Your task to perform on an android device: manage bookmarks in the chrome app Image 0: 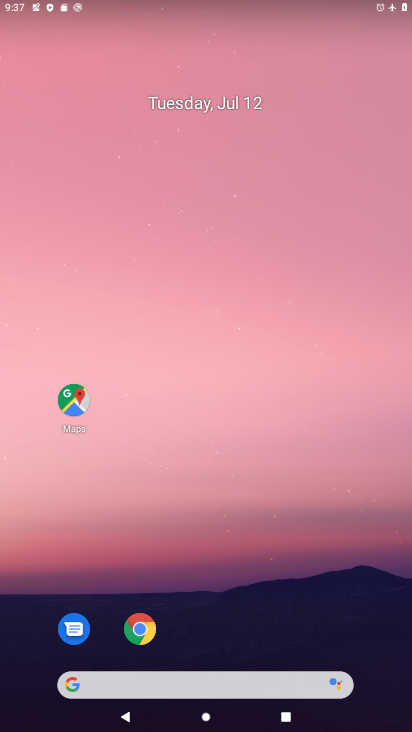
Step 0: drag from (240, 526) to (240, 296)
Your task to perform on an android device: manage bookmarks in the chrome app Image 1: 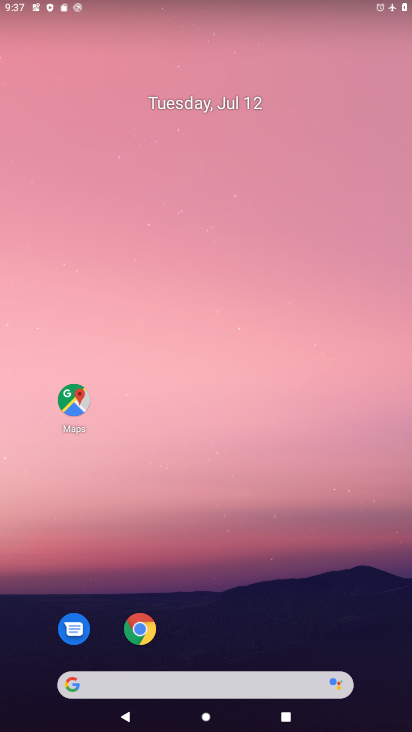
Step 1: drag from (212, 649) to (255, 337)
Your task to perform on an android device: manage bookmarks in the chrome app Image 2: 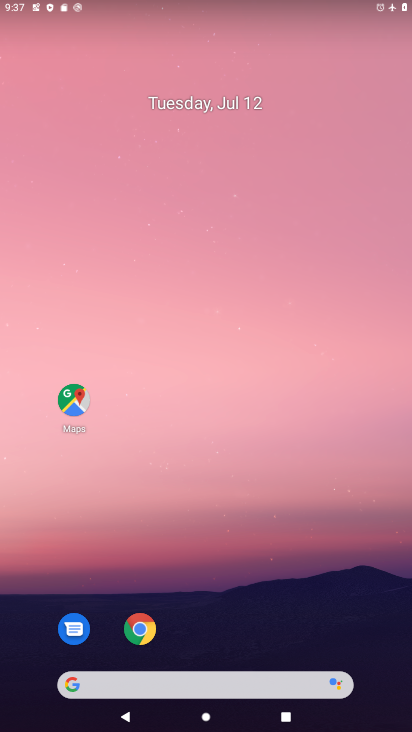
Step 2: drag from (212, 627) to (235, 396)
Your task to perform on an android device: manage bookmarks in the chrome app Image 3: 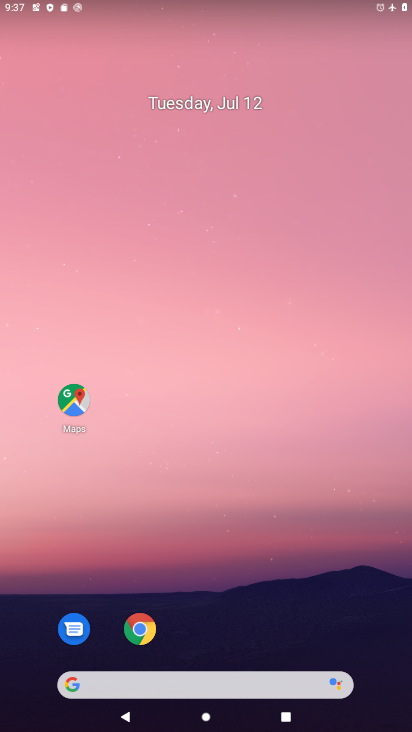
Step 3: drag from (233, 642) to (242, 175)
Your task to perform on an android device: manage bookmarks in the chrome app Image 4: 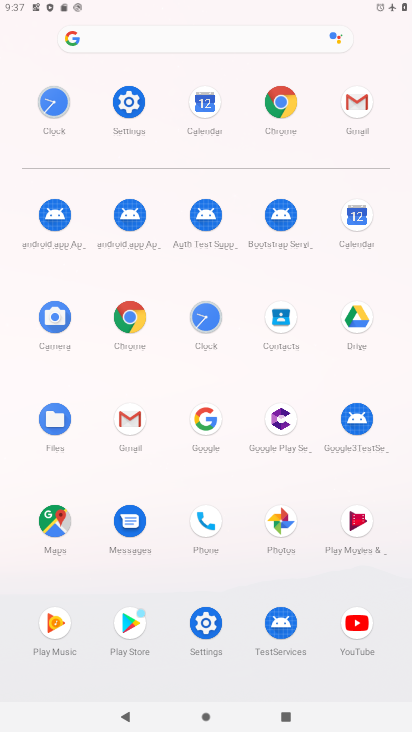
Step 4: click (284, 89)
Your task to perform on an android device: manage bookmarks in the chrome app Image 5: 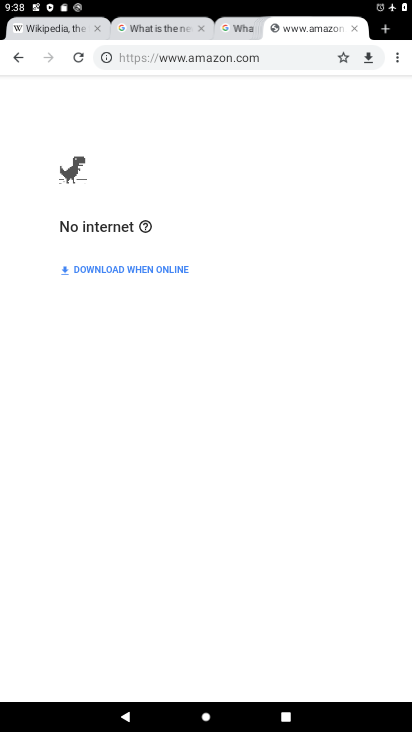
Step 5: click (396, 47)
Your task to perform on an android device: manage bookmarks in the chrome app Image 6: 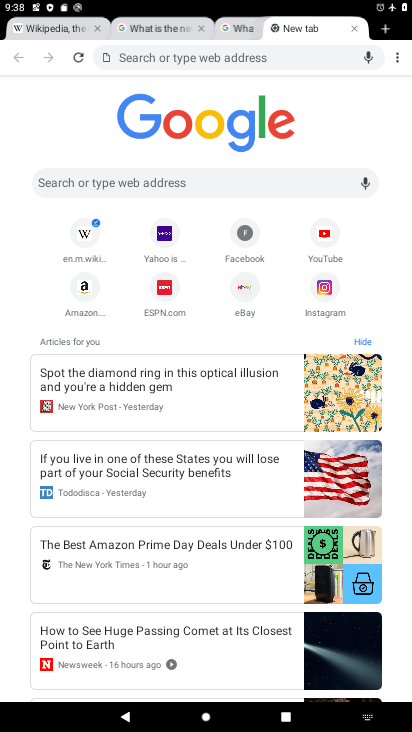
Step 6: click (401, 59)
Your task to perform on an android device: manage bookmarks in the chrome app Image 7: 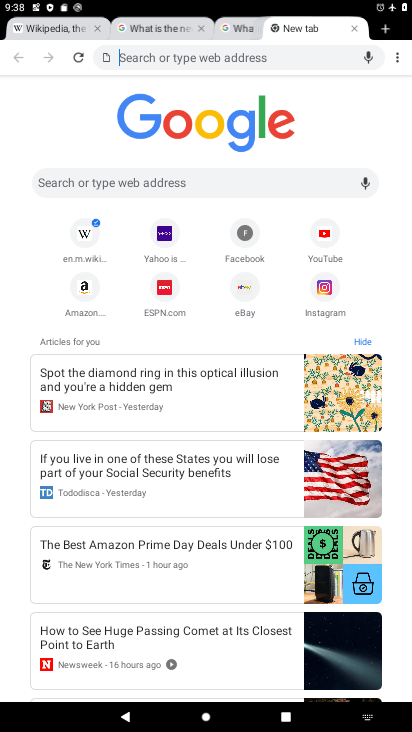
Step 7: click (403, 52)
Your task to perform on an android device: manage bookmarks in the chrome app Image 8: 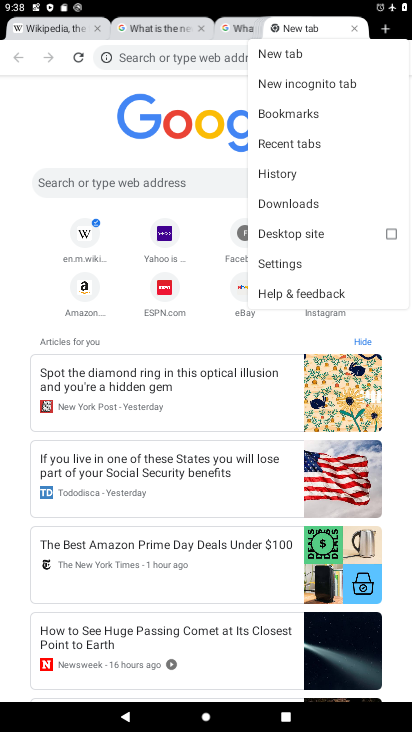
Step 8: click (314, 116)
Your task to perform on an android device: manage bookmarks in the chrome app Image 9: 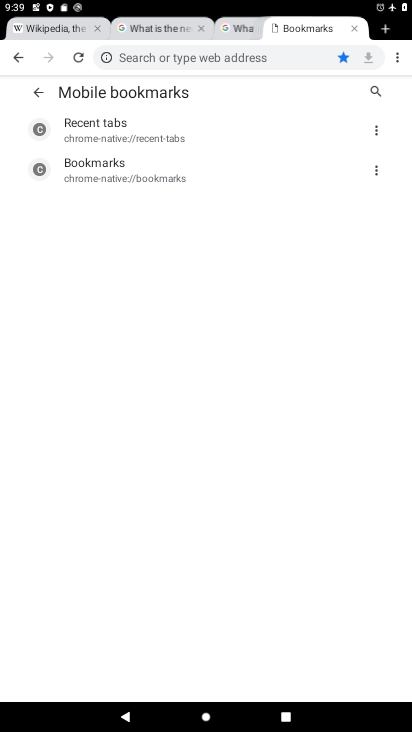
Step 9: click (114, 130)
Your task to perform on an android device: manage bookmarks in the chrome app Image 10: 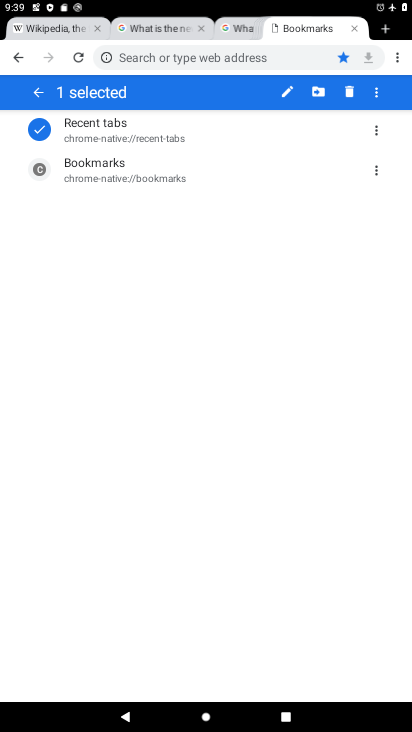
Step 10: click (322, 89)
Your task to perform on an android device: manage bookmarks in the chrome app Image 11: 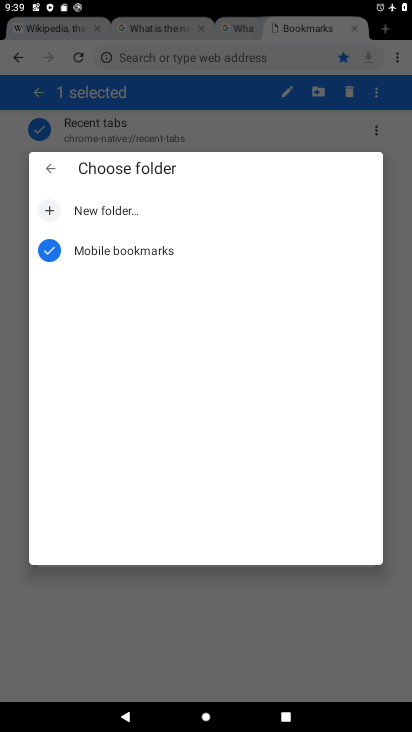
Step 11: click (125, 216)
Your task to perform on an android device: manage bookmarks in the chrome app Image 12: 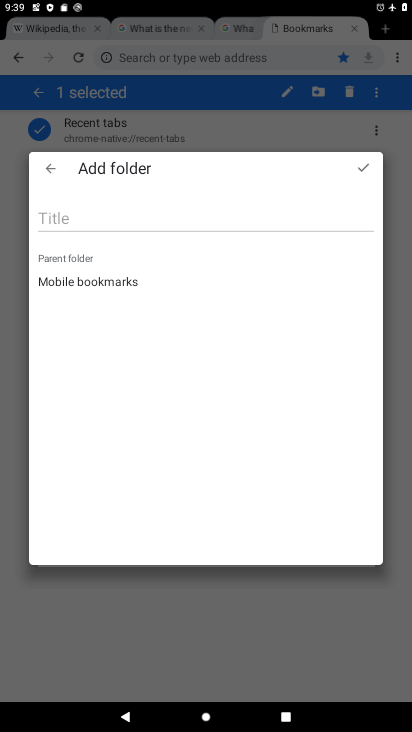
Step 12: click (128, 219)
Your task to perform on an android device: manage bookmarks in the chrome app Image 13: 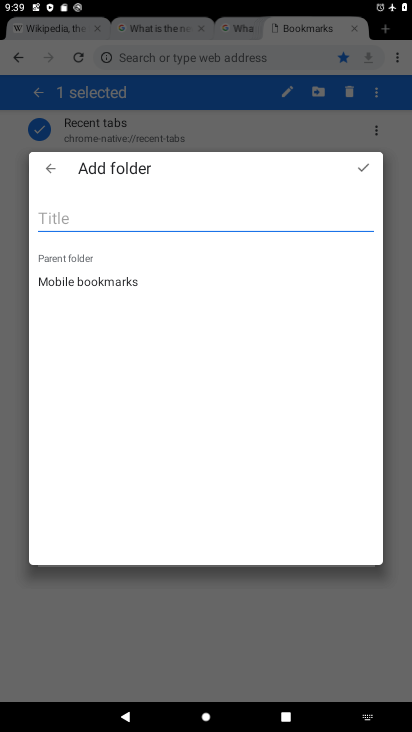
Step 13: type "jvjjvjvvjvjvjv "
Your task to perform on an android device: manage bookmarks in the chrome app Image 14: 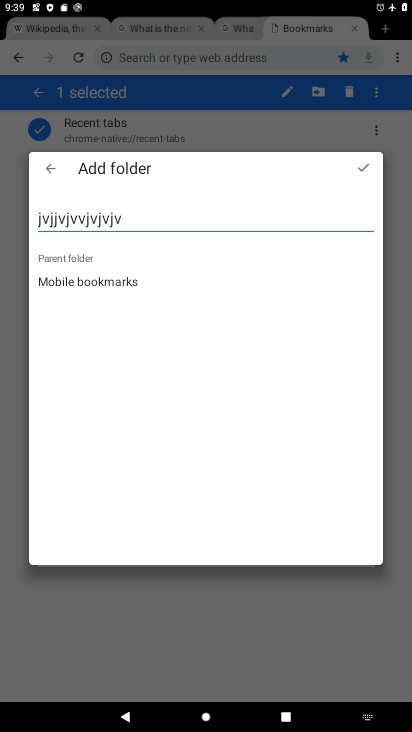
Step 14: click (358, 169)
Your task to perform on an android device: manage bookmarks in the chrome app Image 15: 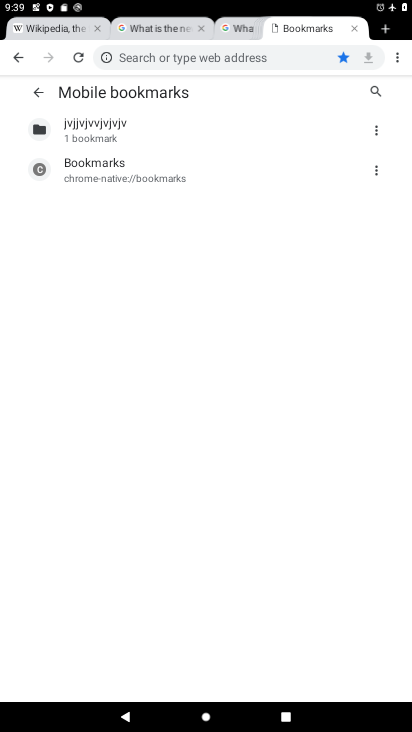
Step 15: task complete